Your task to perform on an android device: all mails in gmail Image 0: 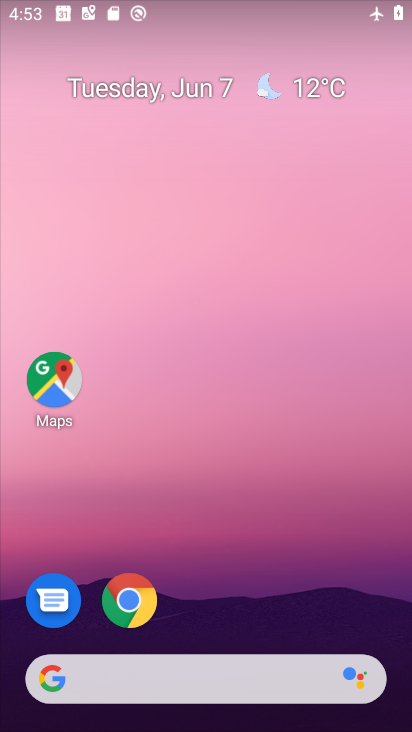
Step 0: drag from (364, 601) to (226, 195)
Your task to perform on an android device: all mails in gmail Image 1: 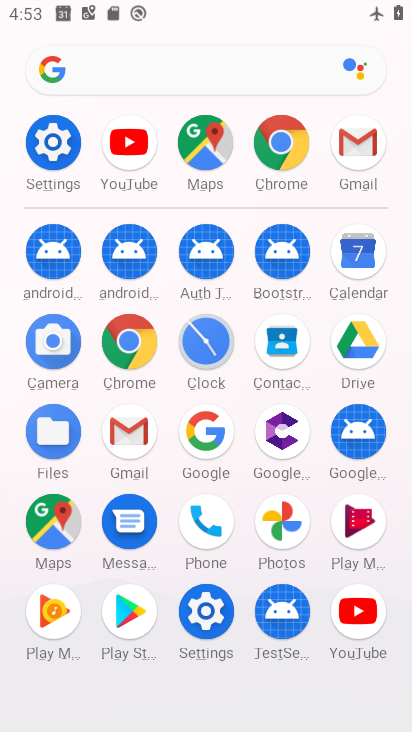
Step 1: click (352, 142)
Your task to perform on an android device: all mails in gmail Image 2: 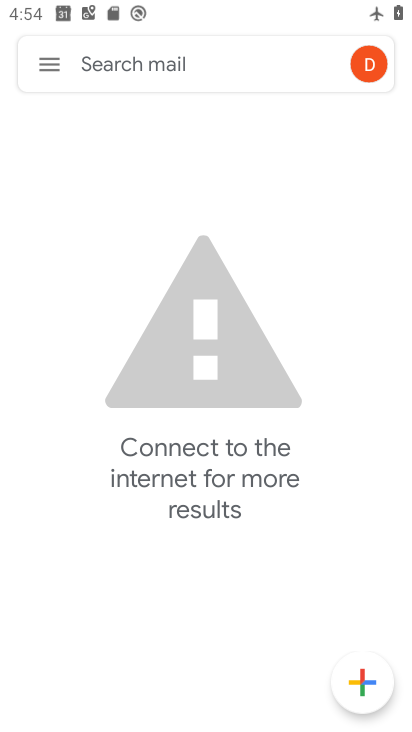
Step 2: task complete